Your task to perform on an android device: Open Google Maps and go to "Timeline" Image 0: 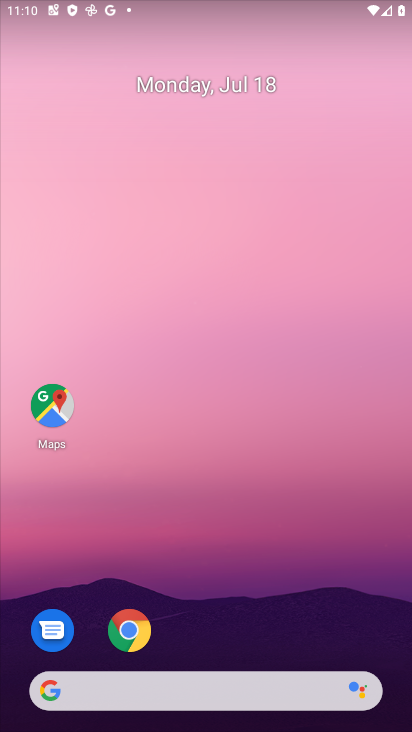
Step 0: drag from (315, 624) to (219, 18)
Your task to perform on an android device: Open Google Maps and go to "Timeline" Image 1: 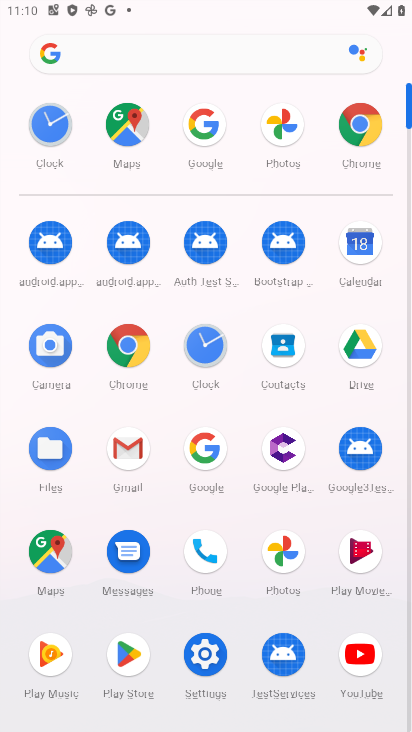
Step 1: click (46, 546)
Your task to perform on an android device: Open Google Maps and go to "Timeline" Image 2: 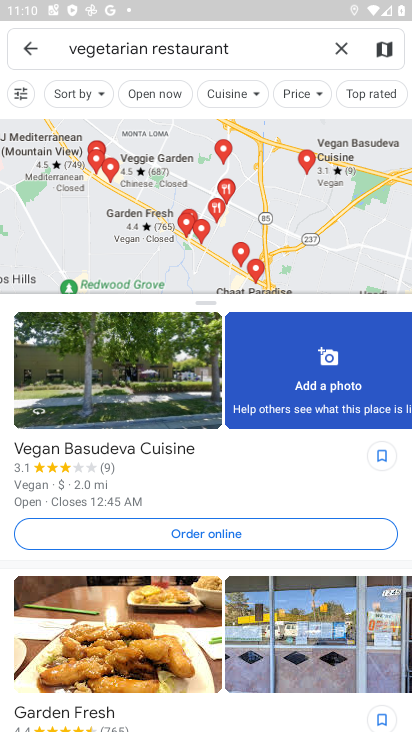
Step 2: click (346, 43)
Your task to perform on an android device: Open Google Maps and go to "Timeline" Image 3: 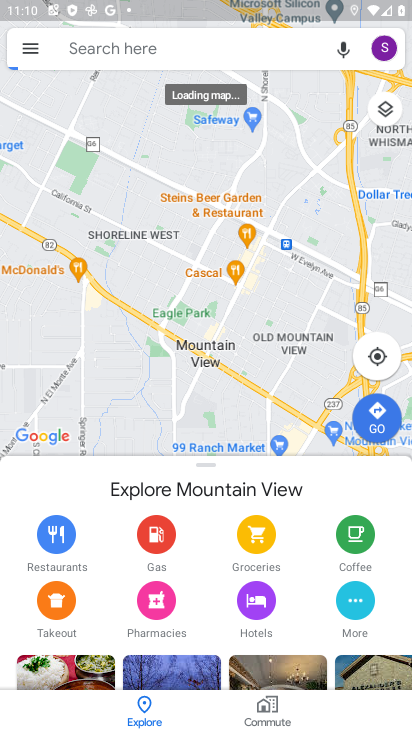
Step 3: click (22, 48)
Your task to perform on an android device: Open Google Maps and go to "Timeline" Image 4: 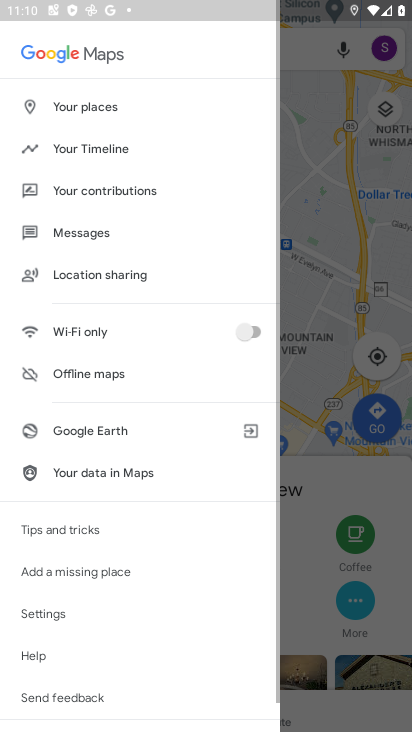
Step 4: click (99, 141)
Your task to perform on an android device: Open Google Maps and go to "Timeline" Image 5: 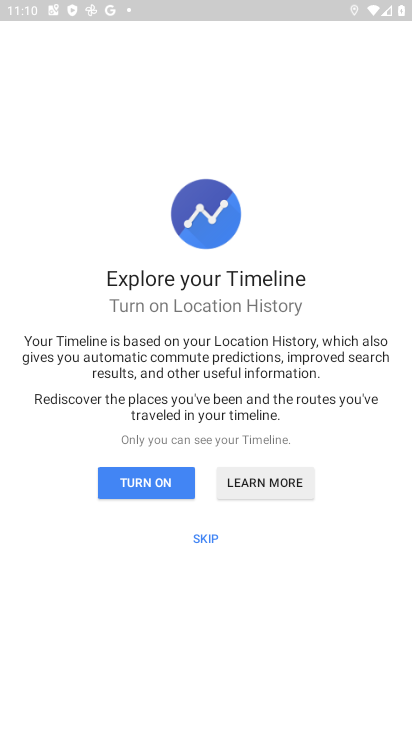
Step 5: task complete